Your task to perform on an android device: change the clock display to show seconds Image 0: 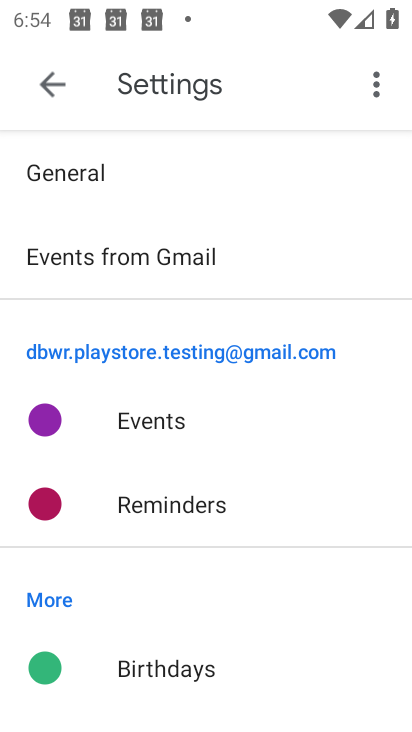
Step 0: press home button
Your task to perform on an android device: change the clock display to show seconds Image 1: 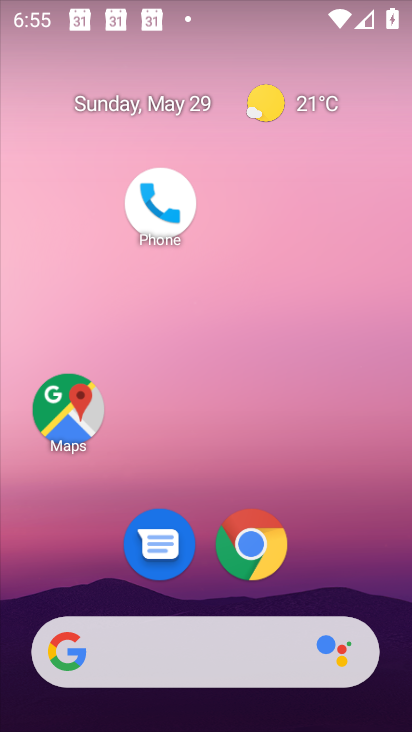
Step 1: drag from (324, 572) to (172, 57)
Your task to perform on an android device: change the clock display to show seconds Image 2: 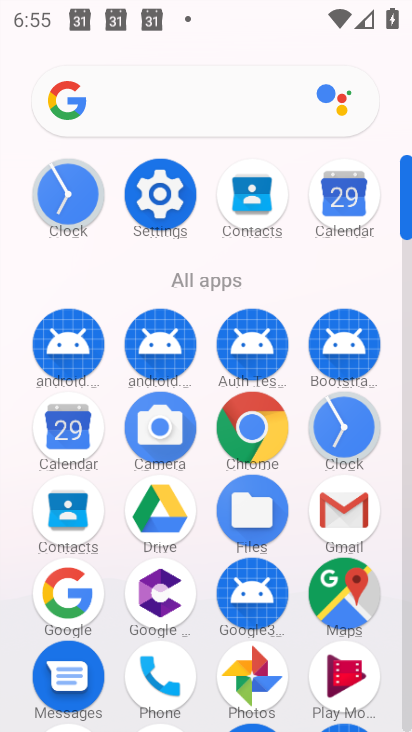
Step 2: click (322, 434)
Your task to perform on an android device: change the clock display to show seconds Image 3: 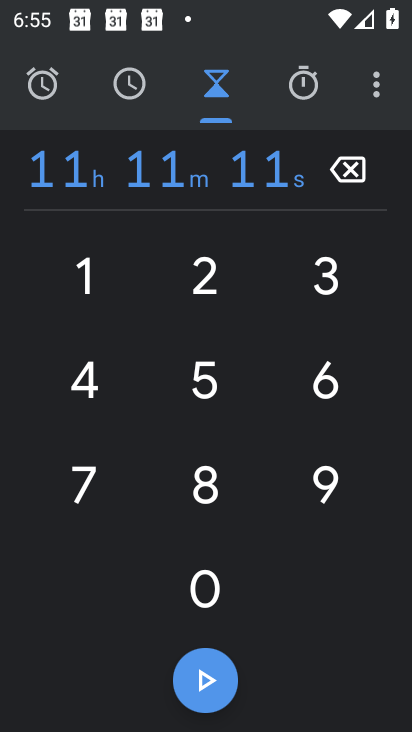
Step 3: click (387, 70)
Your task to perform on an android device: change the clock display to show seconds Image 4: 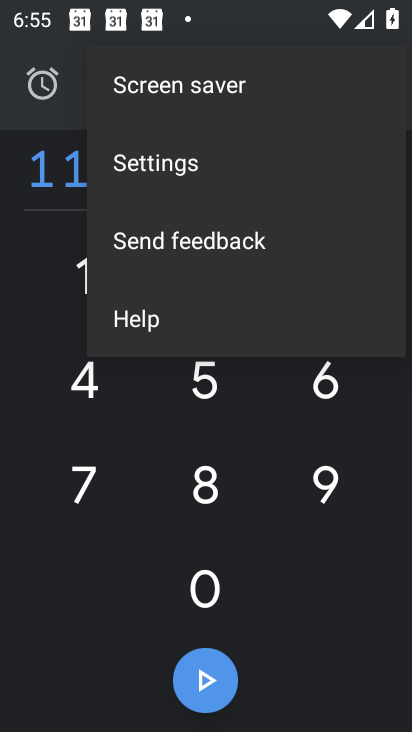
Step 4: click (173, 168)
Your task to perform on an android device: change the clock display to show seconds Image 5: 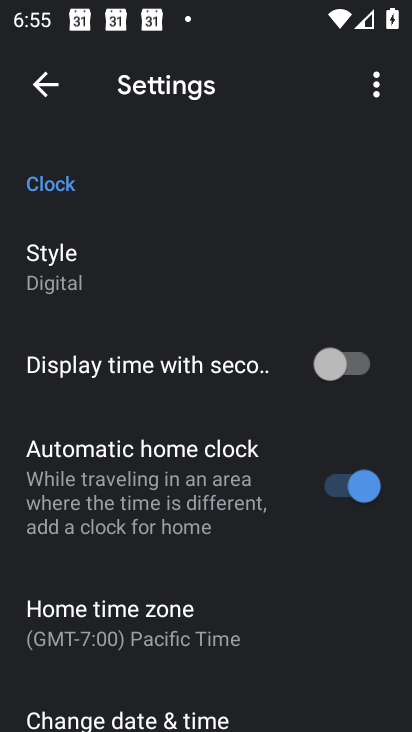
Step 5: click (339, 367)
Your task to perform on an android device: change the clock display to show seconds Image 6: 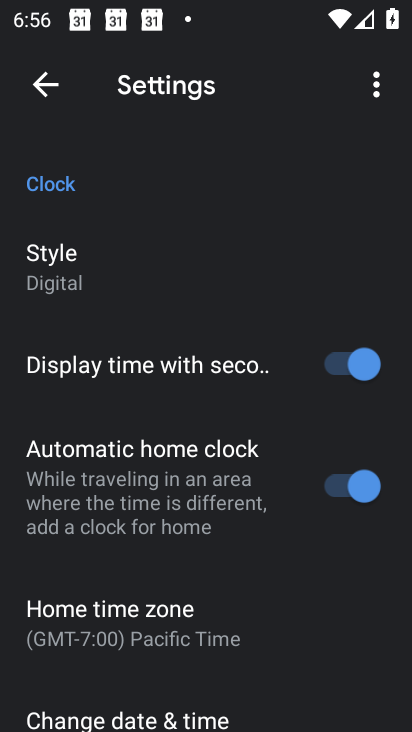
Step 6: task complete